Your task to perform on an android device: What is the news today? Image 0: 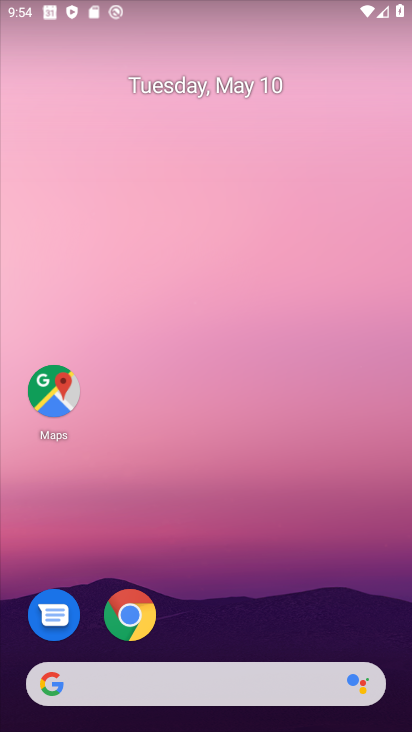
Step 0: press home button
Your task to perform on an android device: What is the news today? Image 1: 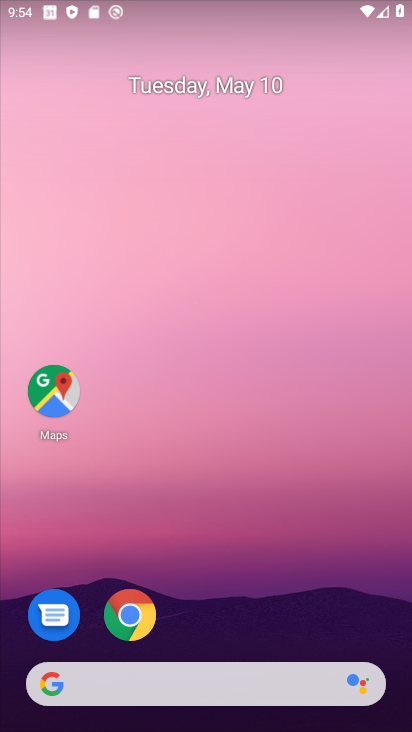
Step 1: task complete